Your task to perform on an android device: change keyboard looks Image 0: 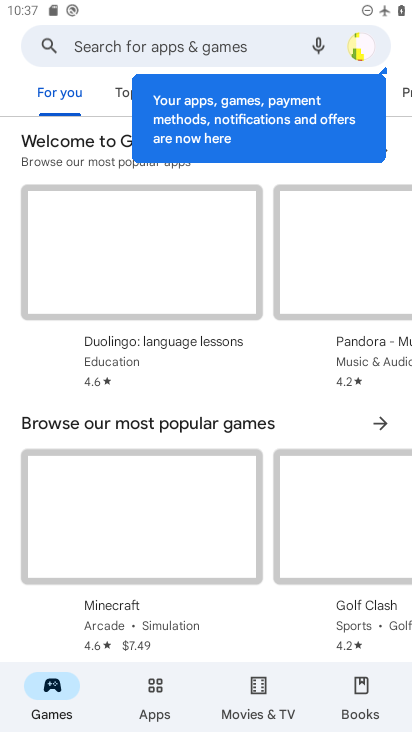
Step 0: press home button
Your task to perform on an android device: change keyboard looks Image 1: 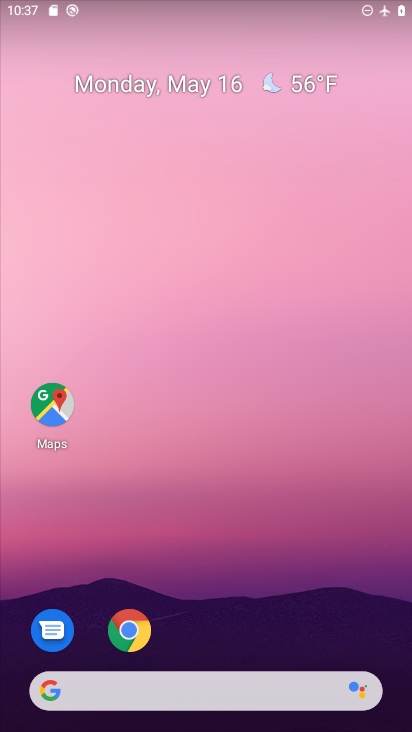
Step 1: drag from (238, 601) to (182, 49)
Your task to perform on an android device: change keyboard looks Image 2: 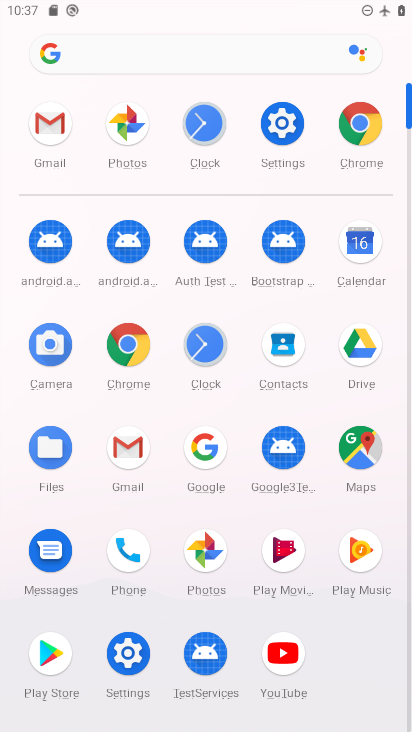
Step 2: click (276, 116)
Your task to perform on an android device: change keyboard looks Image 3: 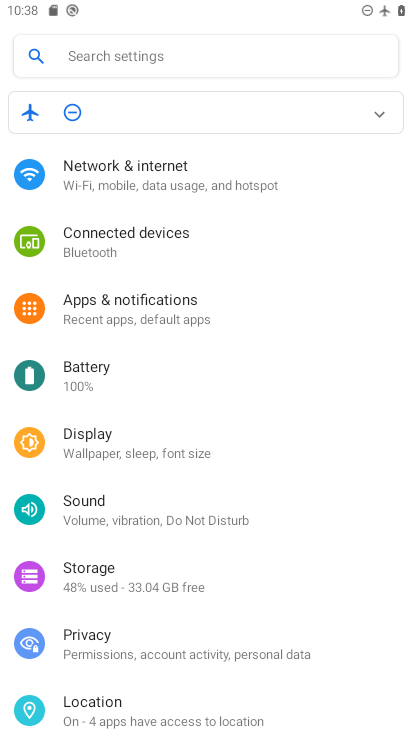
Step 3: drag from (256, 513) to (233, 270)
Your task to perform on an android device: change keyboard looks Image 4: 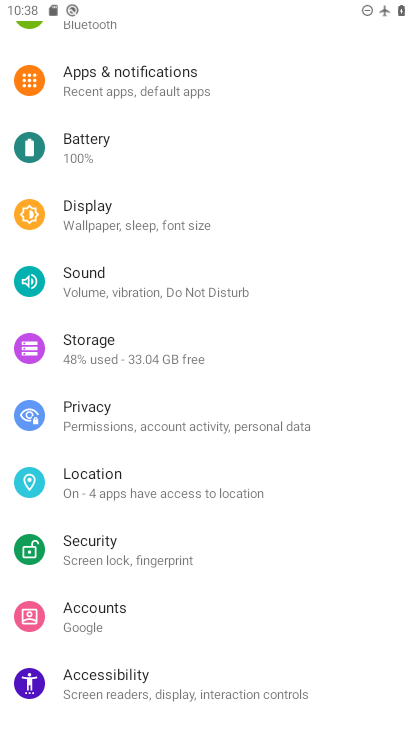
Step 4: drag from (174, 499) to (150, 312)
Your task to perform on an android device: change keyboard looks Image 5: 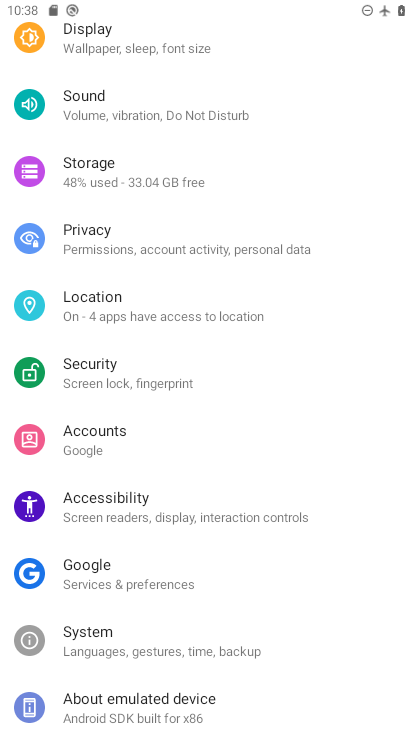
Step 5: click (108, 638)
Your task to perform on an android device: change keyboard looks Image 6: 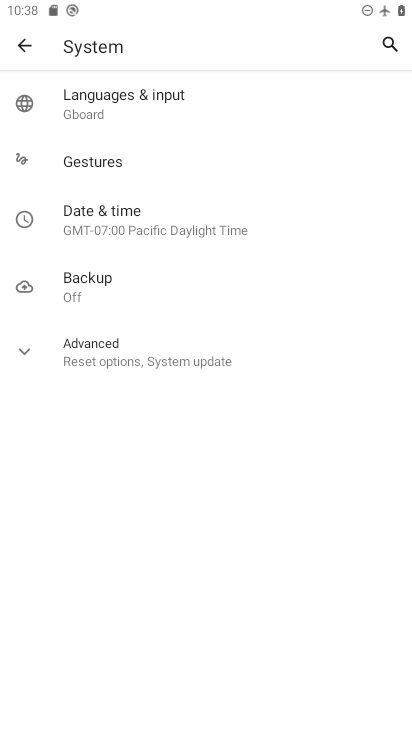
Step 6: click (153, 97)
Your task to perform on an android device: change keyboard looks Image 7: 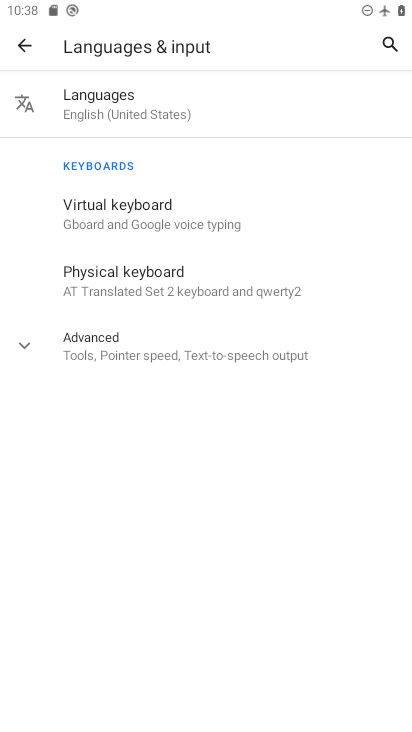
Step 7: click (148, 192)
Your task to perform on an android device: change keyboard looks Image 8: 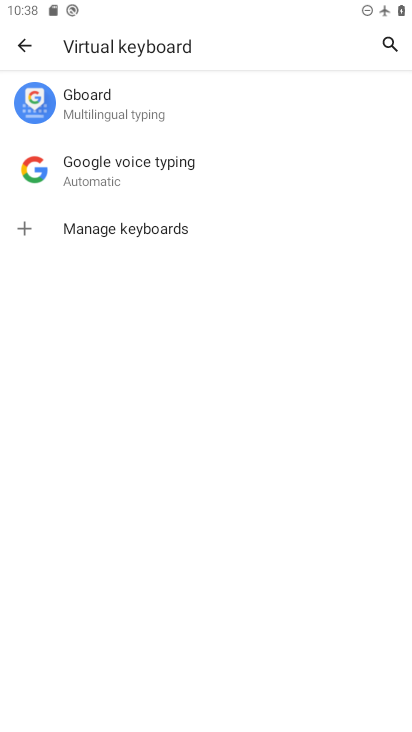
Step 8: click (138, 98)
Your task to perform on an android device: change keyboard looks Image 9: 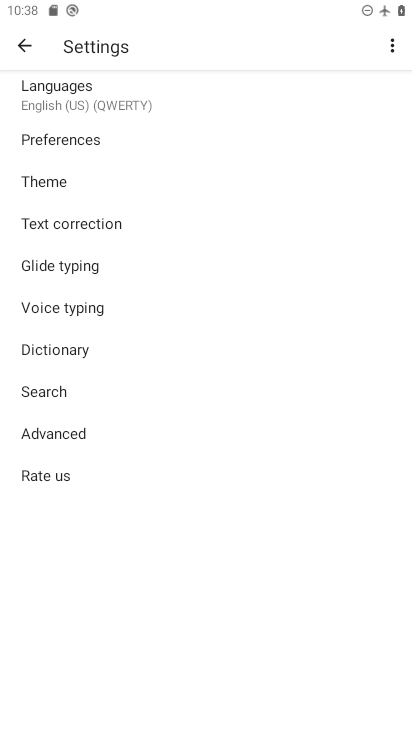
Step 9: click (91, 175)
Your task to perform on an android device: change keyboard looks Image 10: 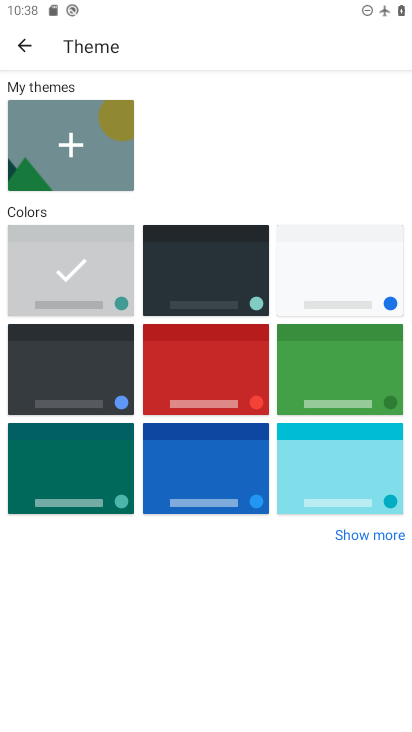
Step 10: click (345, 378)
Your task to perform on an android device: change keyboard looks Image 11: 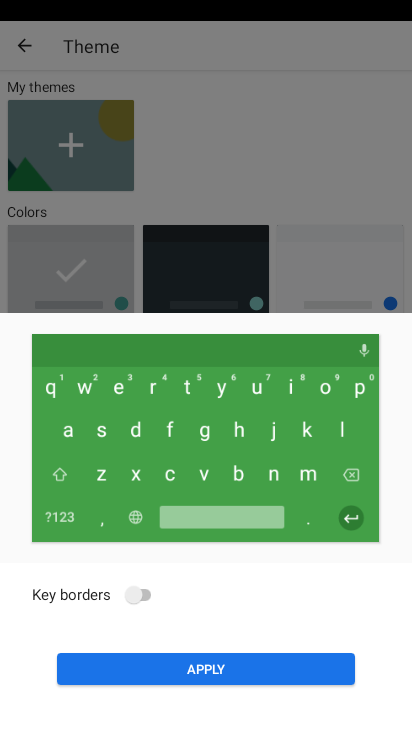
Step 11: click (138, 587)
Your task to perform on an android device: change keyboard looks Image 12: 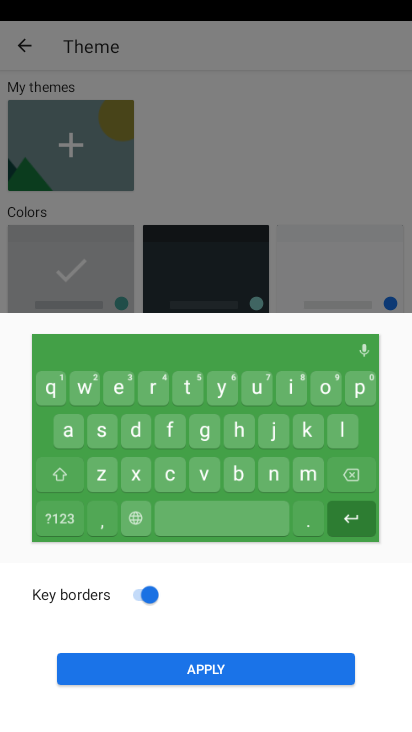
Step 12: click (219, 662)
Your task to perform on an android device: change keyboard looks Image 13: 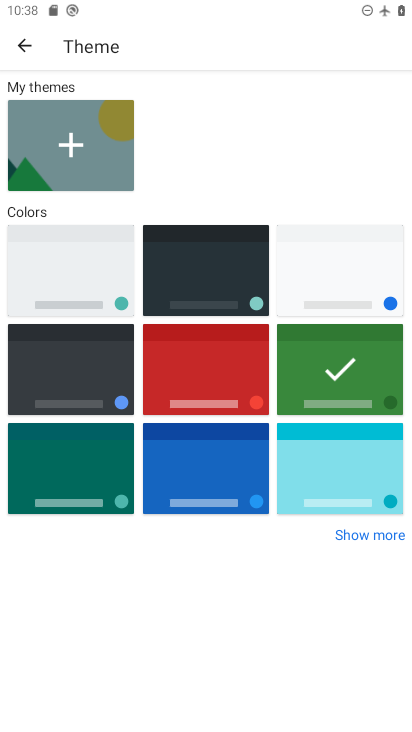
Step 13: task complete